Your task to perform on an android device: toggle improve location accuracy Image 0: 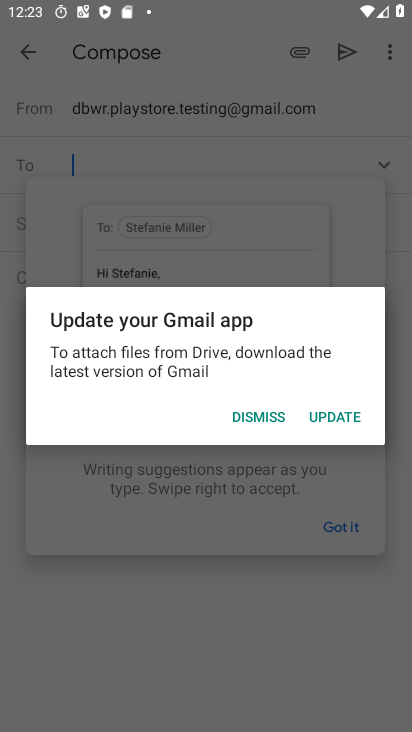
Step 0: press home button
Your task to perform on an android device: toggle improve location accuracy Image 1: 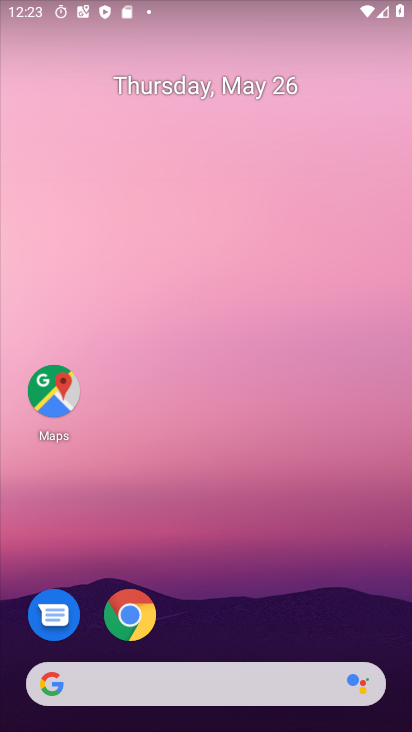
Step 1: drag from (258, 600) to (201, 205)
Your task to perform on an android device: toggle improve location accuracy Image 2: 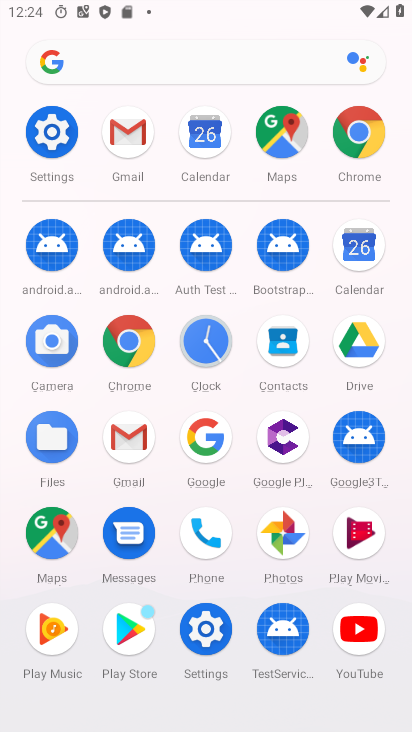
Step 2: click (61, 140)
Your task to perform on an android device: toggle improve location accuracy Image 3: 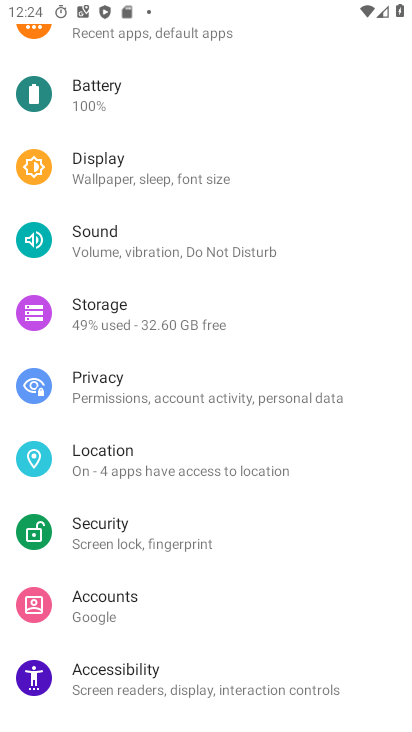
Step 3: click (246, 467)
Your task to perform on an android device: toggle improve location accuracy Image 4: 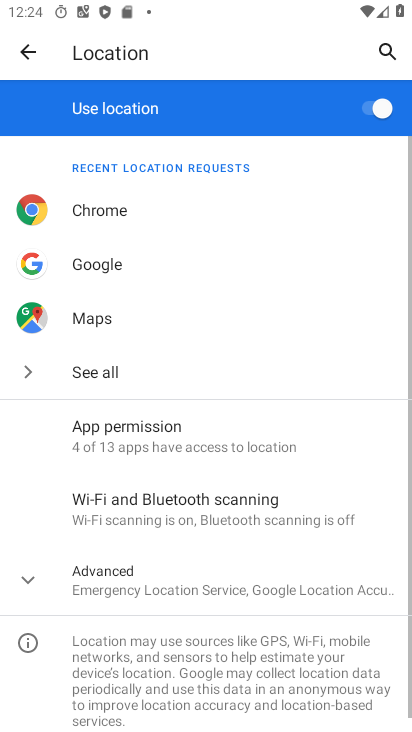
Step 4: click (288, 574)
Your task to perform on an android device: toggle improve location accuracy Image 5: 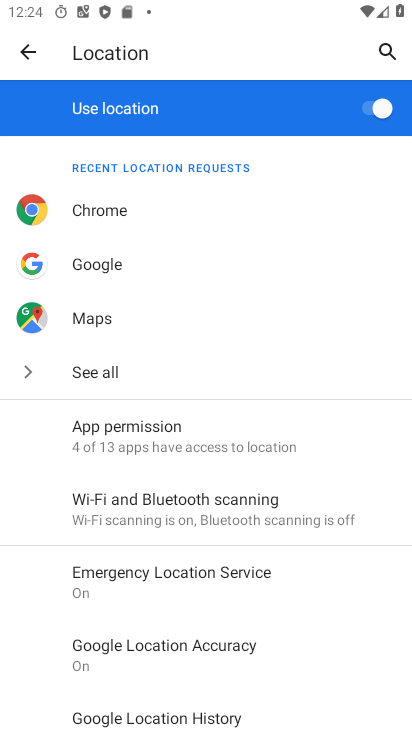
Step 5: click (287, 653)
Your task to perform on an android device: toggle improve location accuracy Image 6: 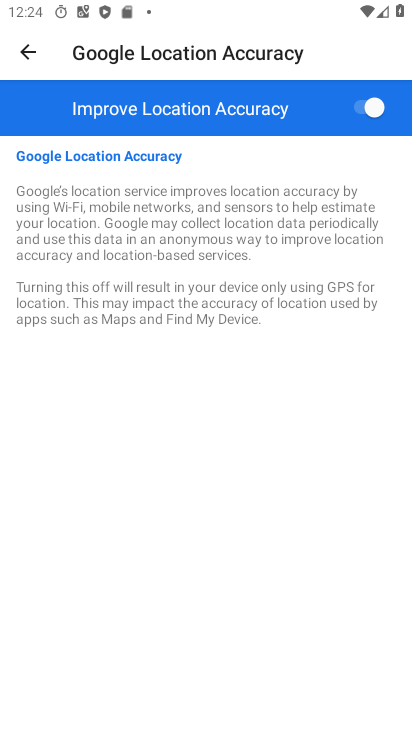
Step 6: click (359, 117)
Your task to perform on an android device: toggle improve location accuracy Image 7: 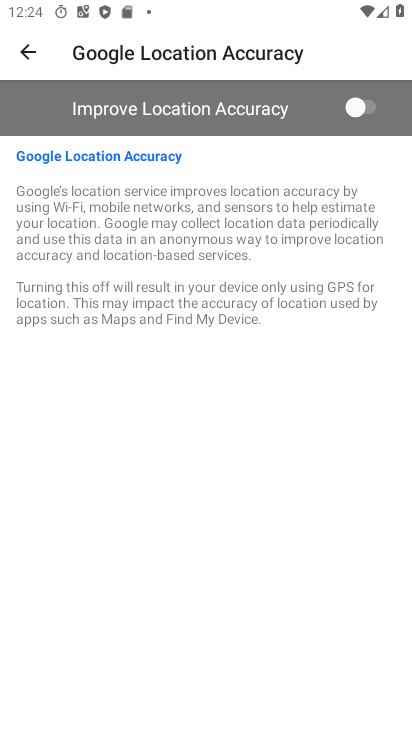
Step 7: task complete